Your task to perform on an android device: turn on javascript in the chrome app Image 0: 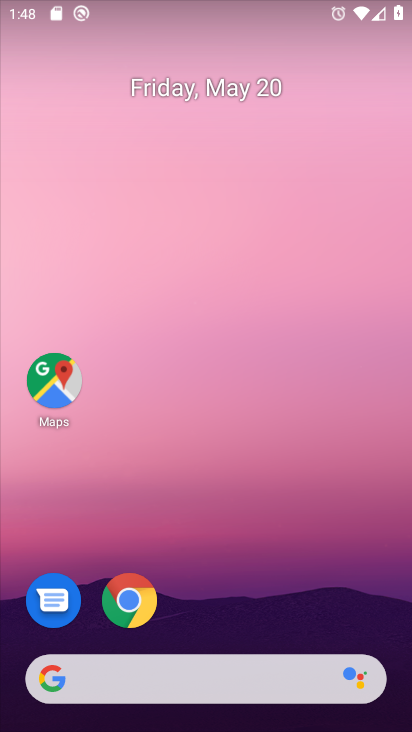
Step 0: click (137, 609)
Your task to perform on an android device: turn on javascript in the chrome app Image 1: 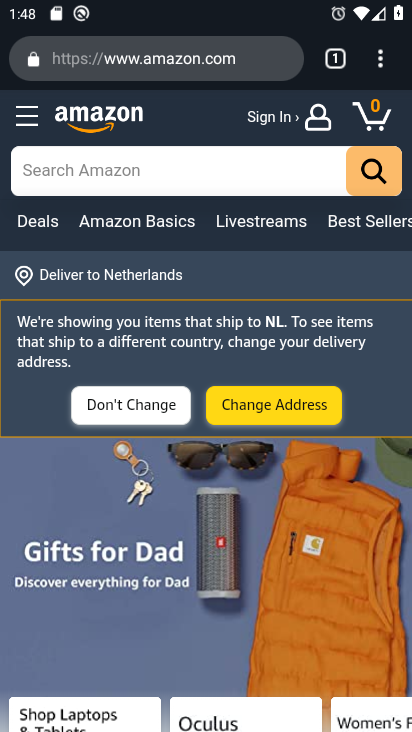
Step 1: click (390, 68)
Your task to perform on an android device: turn on javascript in the chrome app Image 2: 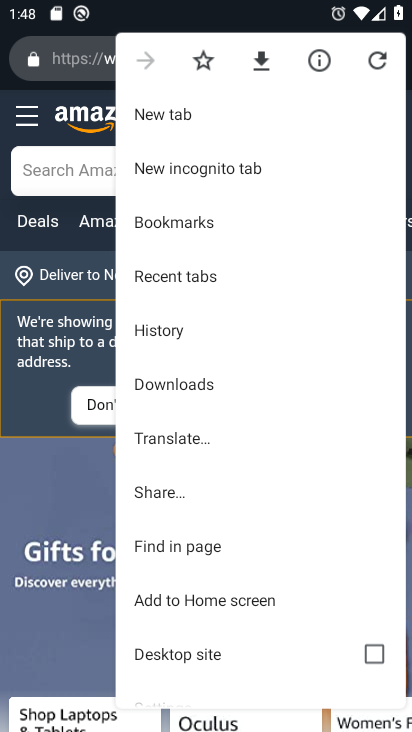
Step 2: drag from (196, 631) to (232, 392)
Your task to perform on an android device: turn on javascript in the chrome app Image 3: 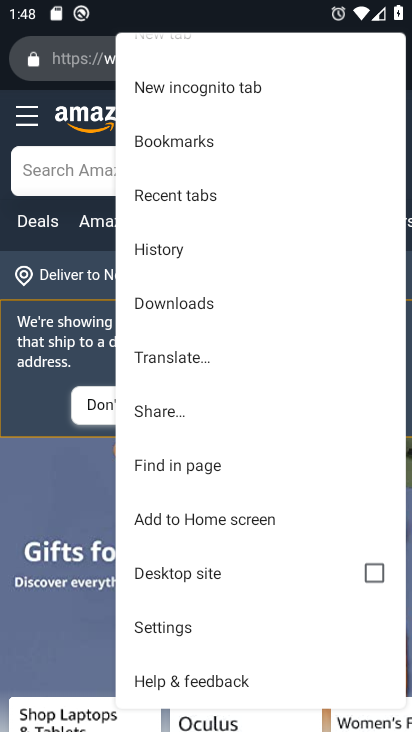
Step 3: click (169, 634)
Your task to perform on an android device: turn on javascript in the chrome app Image 4: 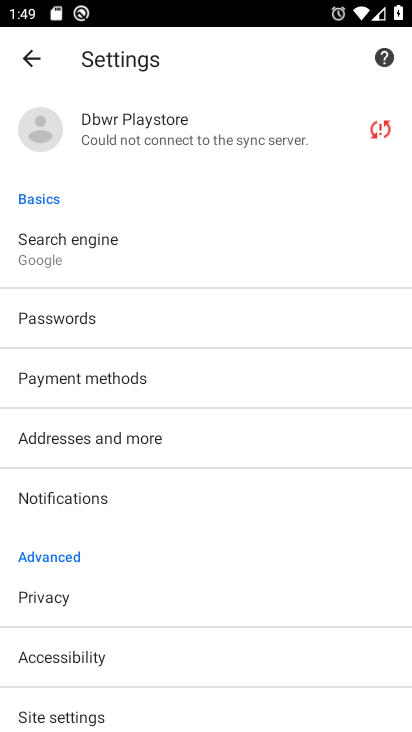
Step 4: drag from (105, 645) to (137, 461)
Your task to perform on an android device: turn on javascript in the chrome app Image 5: 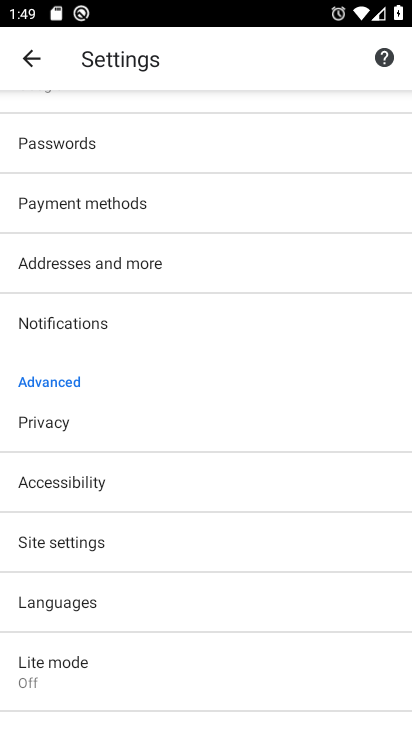
Step 5: click (94, 547)
Your task to perform on an android device: turn on javascript in the chrome app Image 6: 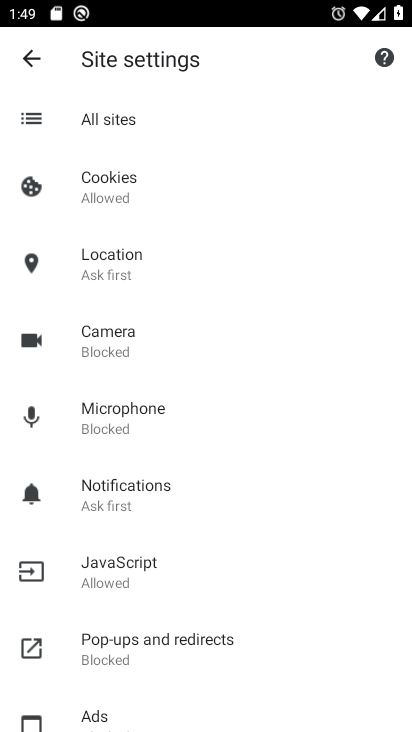
Step 6: click (137, 578)
Your task to perform on an android device: turn on javascript in the chrome app Image 7: 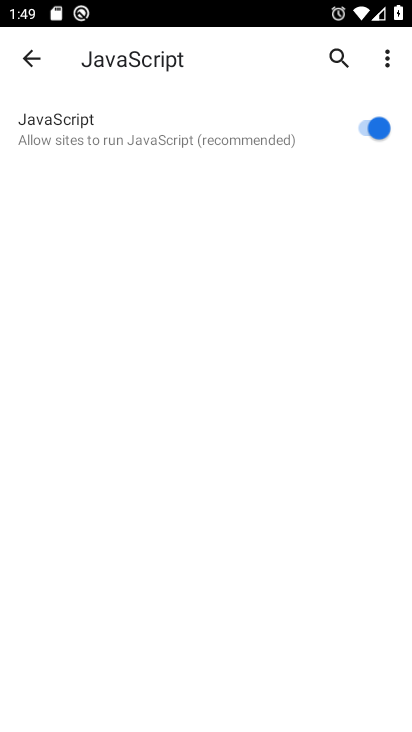
Step 7: task complete